Your task to perform on an android device: Go to notification settings Image 0: 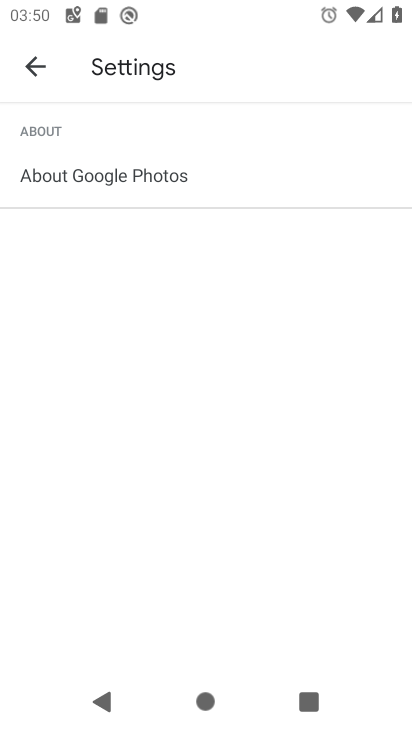
Step 0: press home button
Your task to perform on an android device: Go to notification settings Image 1: 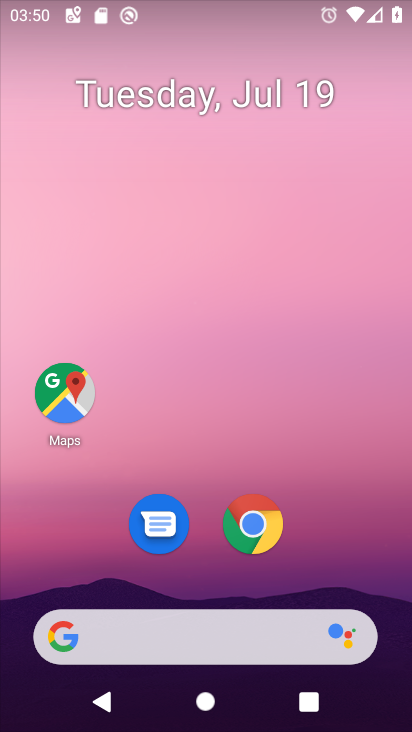
Step 1: drag from (335, 565) to (346, 92)
Your task to perform on an android device: Go to notification settings Image 2: 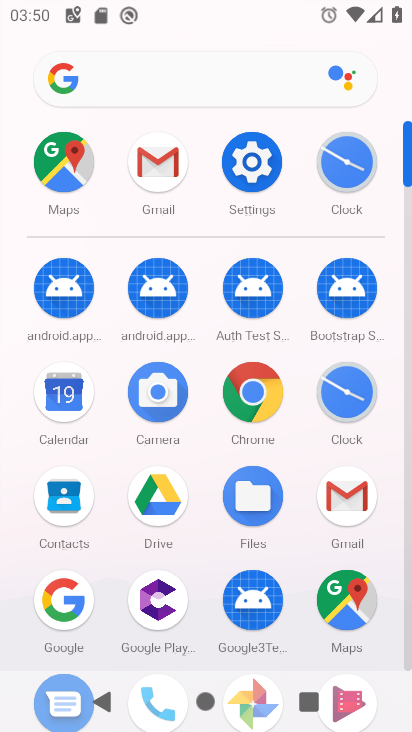
Step 2: click (248, 168)
Your task to perform on an android device: Go to notification settings Image 3: 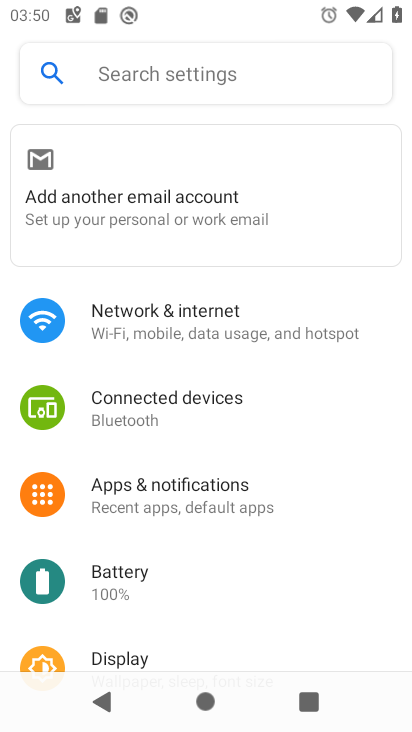
Step 3: click (224, 485)
Your task to perform on an android device: Go to notification settings Image 4: 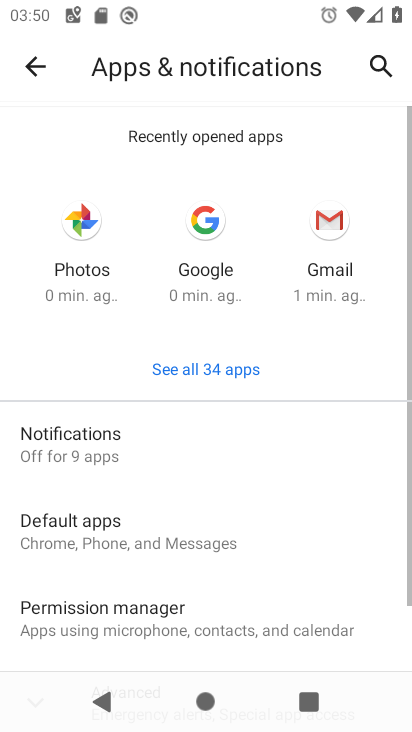
Step 4: click (100, 445)
Your task to perform on an android device: Go to notification settings Image 5: 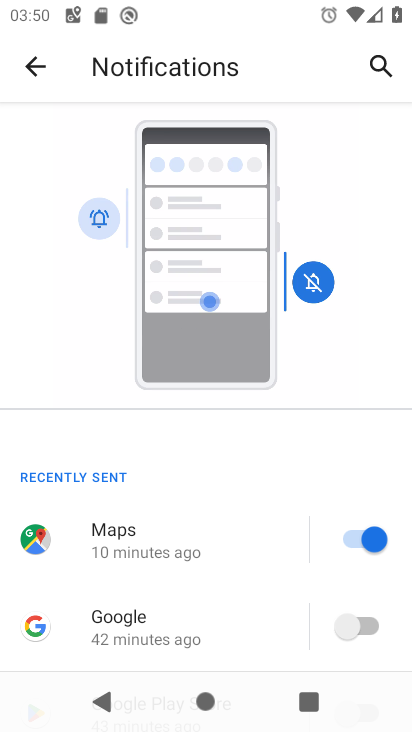
Step 5: task complete